Your task to perform on an android device: change your default location settings in chrome Image 0: 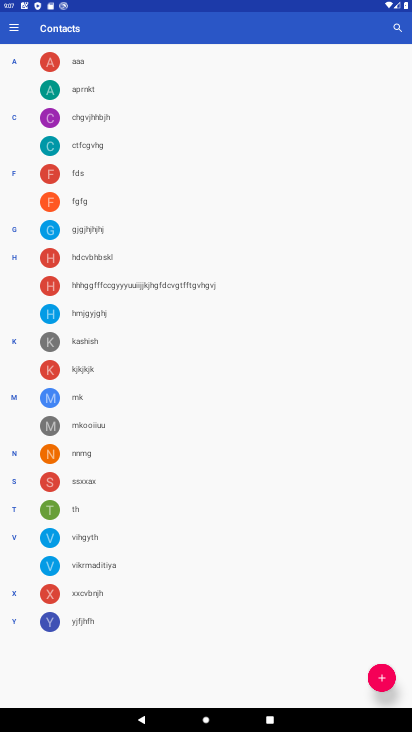
Step 0: press home button
Your task to perform on an android device: change your default location settings in chrome Image 1: 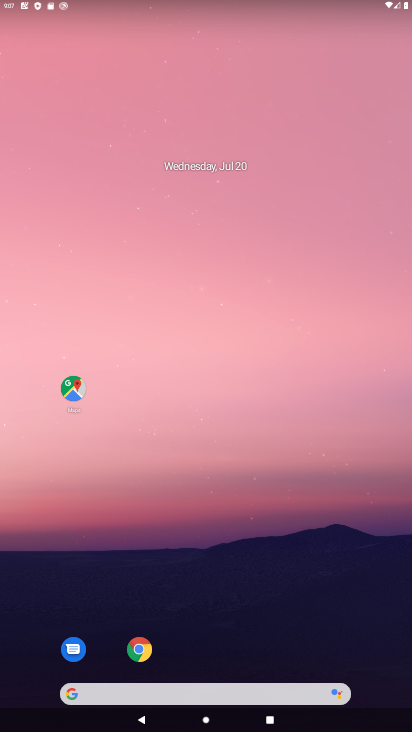
Step 1: drag from (256, 645) to (272, 113)
Your task to perform on an android device: change your default location settings in chrome Image 2: 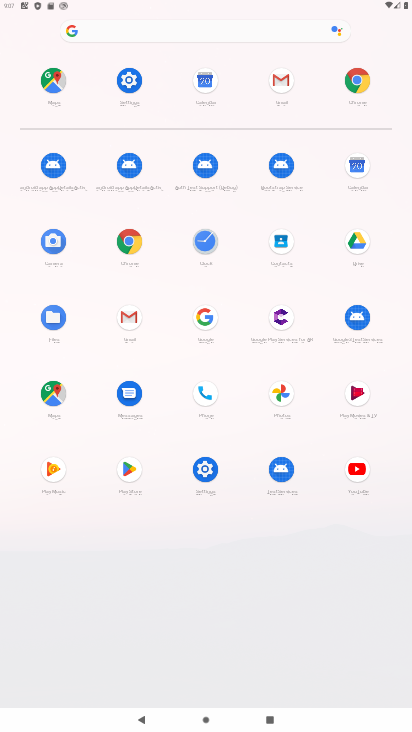
Step 2: click (356, 94)
Your task to perform on an android device: change your default location settings in chrome Image 3: 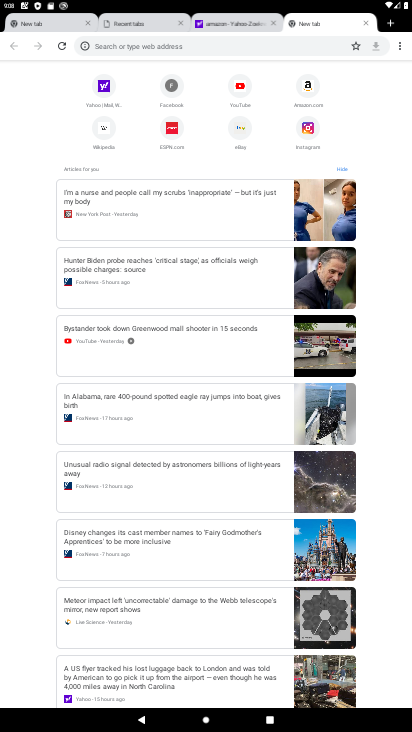
Step 3: task complete